Your task to perform on an android device: open app "Paramount+ | Peak Streaming" Image 0: 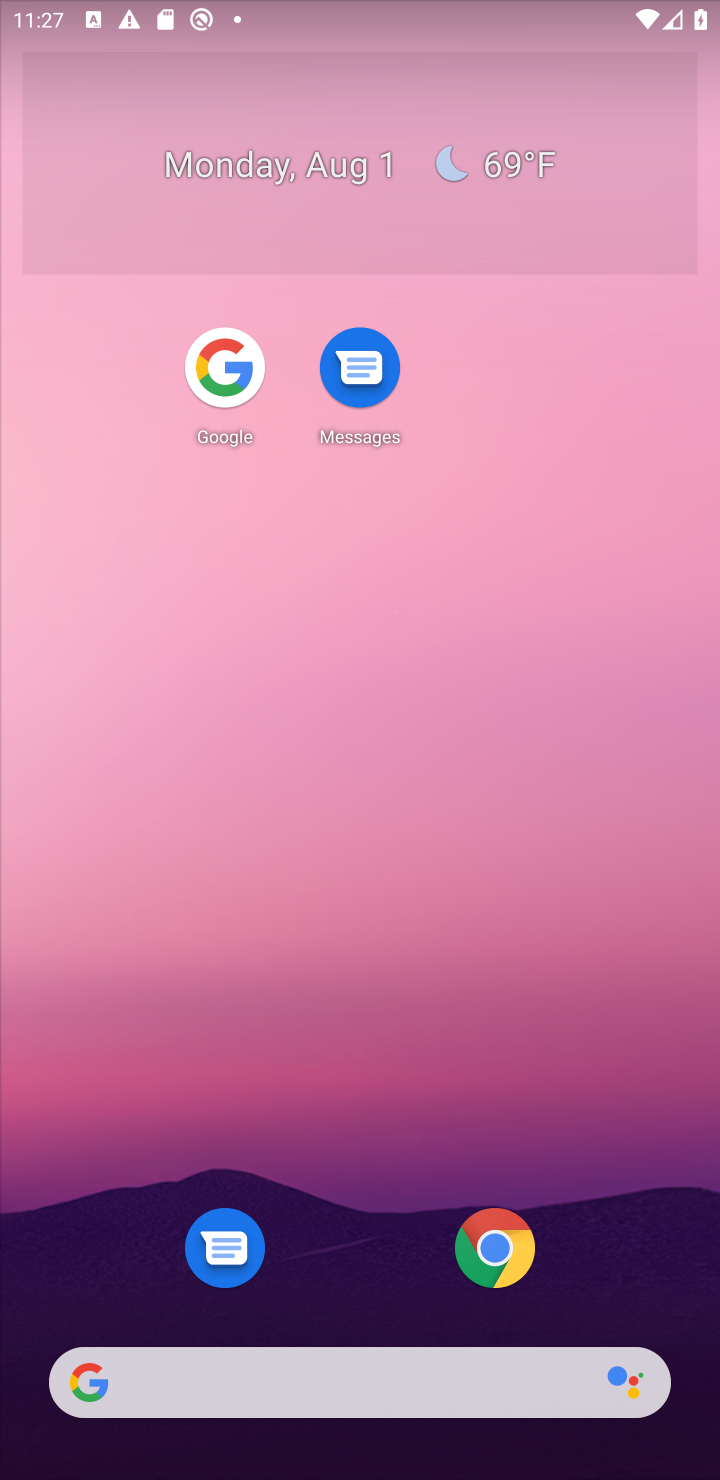
Step 0: drag from (552, 1076) to (688, 234)
Your task to perform on an android device: open app "Paramount+ | Peak Streaming" Image 1: 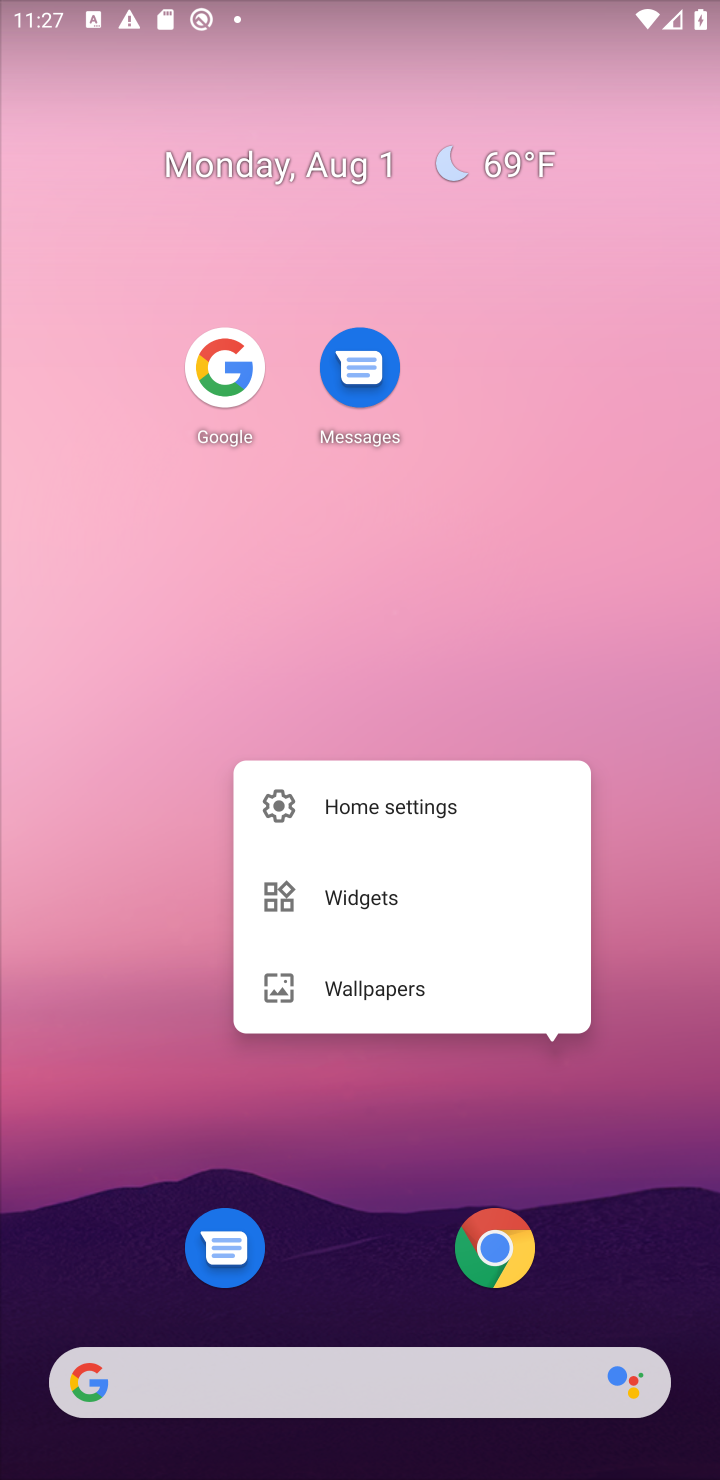
Step 1: click (583, 608)
Your task to perform on an android device: open app "Paramount+ | Peak Streaming" Image 2: 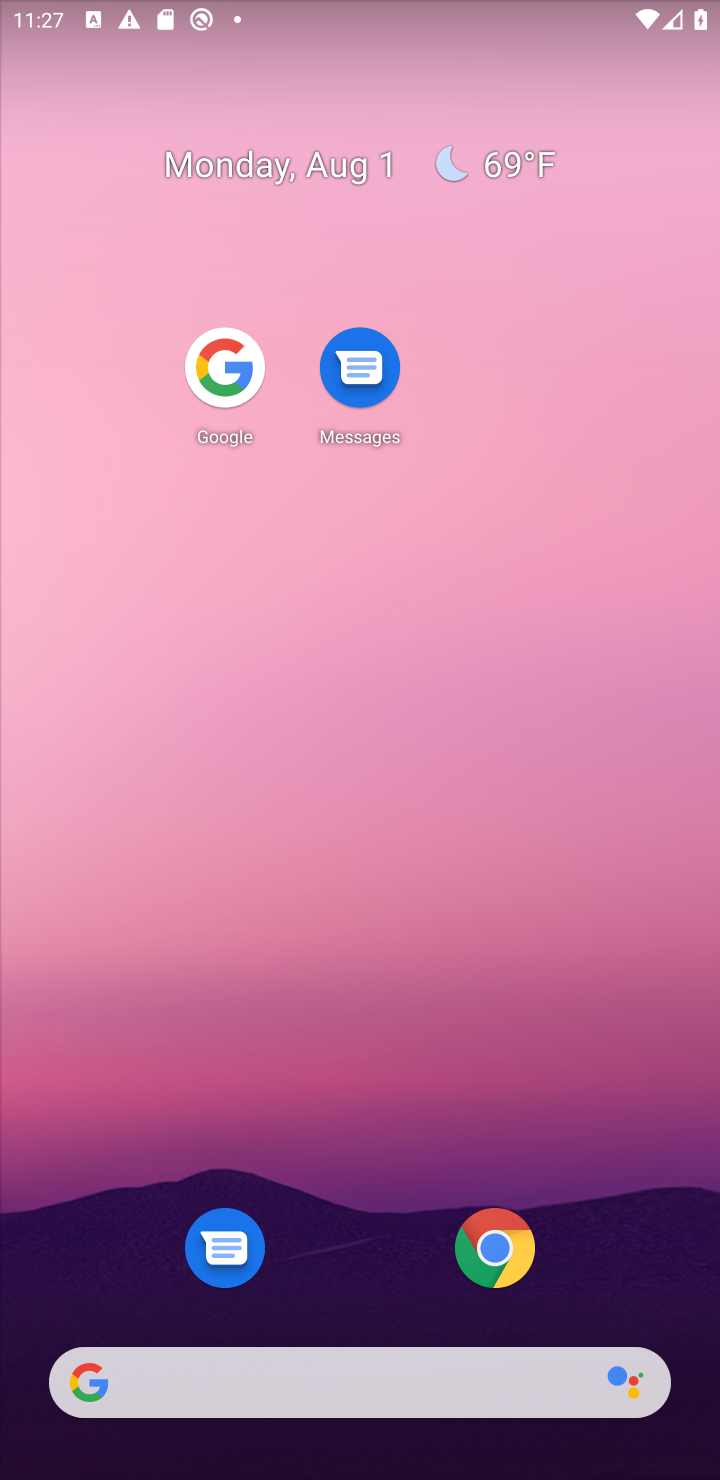
Step 2: drag from (331, 1264) to (498, 324)
Your task to perform on an android device: open app "Paramount+ | Peak Streaming" Image 3: 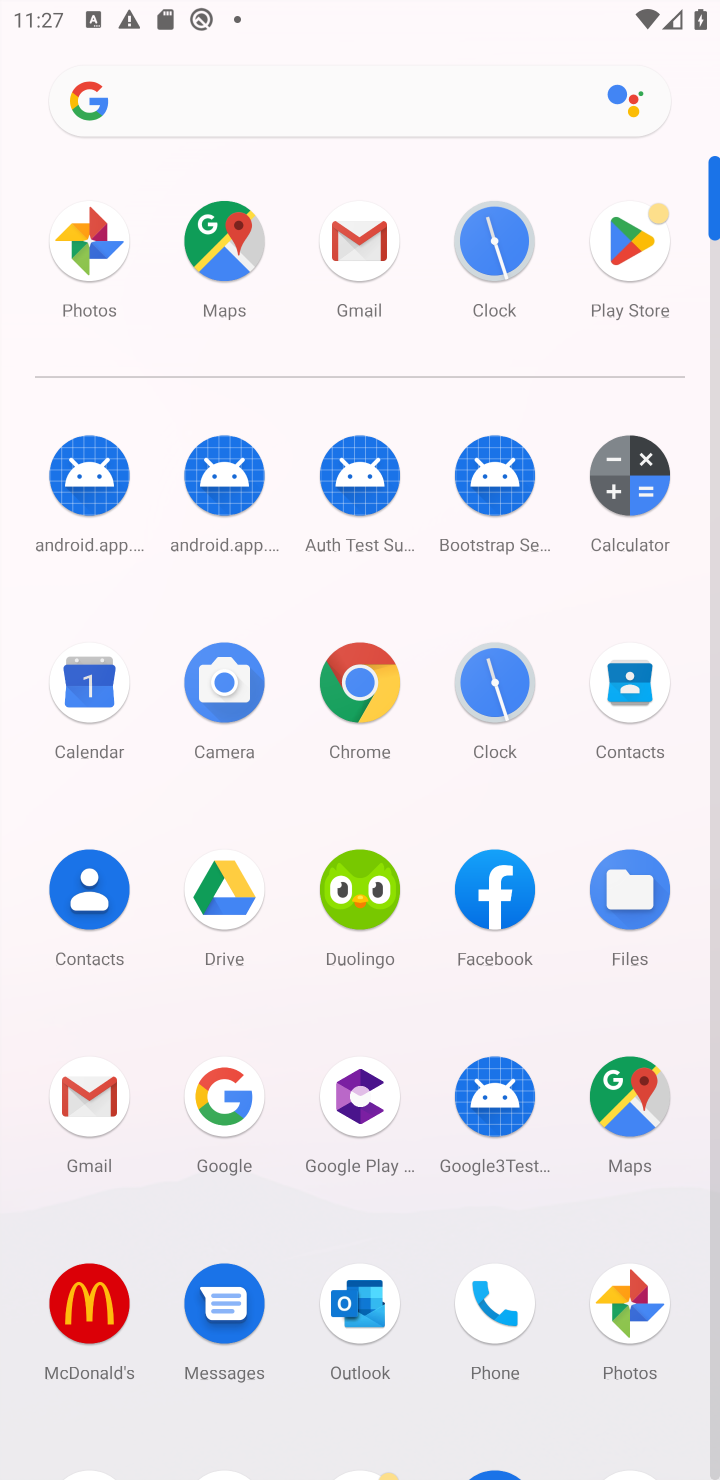
Step 3: drag from (422, 1217) to (310, 388)
Your task to perform on an android device: open app "Paramount+ | Peak Streaming" Image 4: 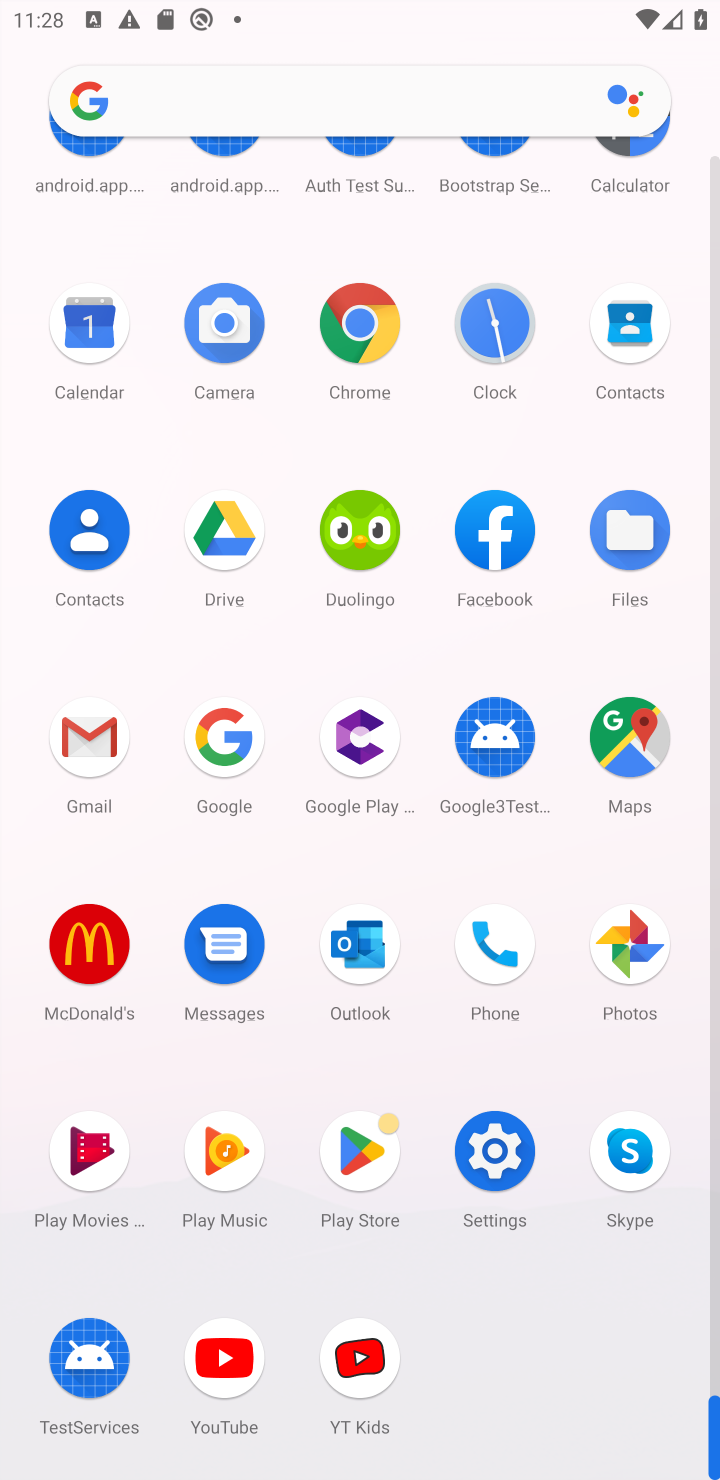
Step 4: click (373, 1156)
Your task to perform on an android device: open app "Paramount+ | Peak Streaming" Image 5: 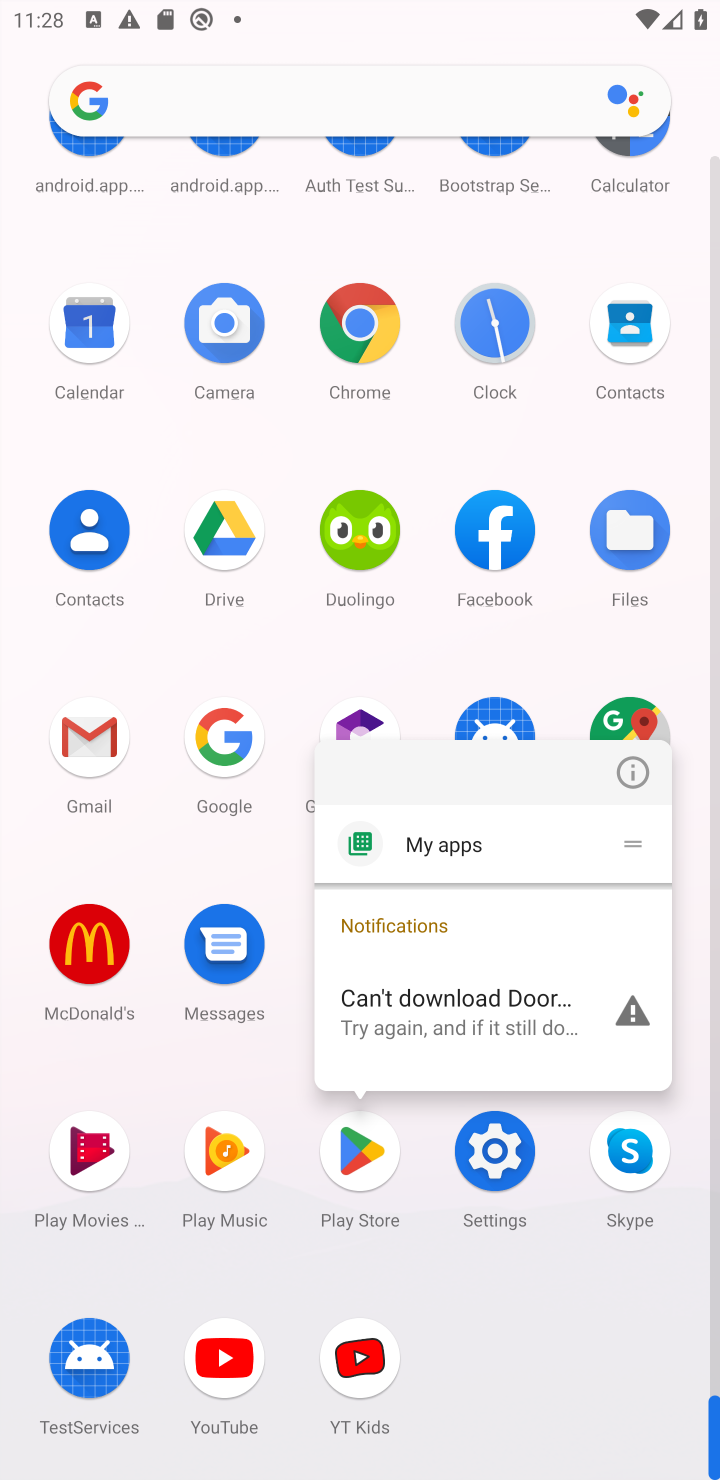
Step 5: click (347, 1157)
Your task to perform on an android device: open app "Paramount+ | Peak Streaming" Image 6: 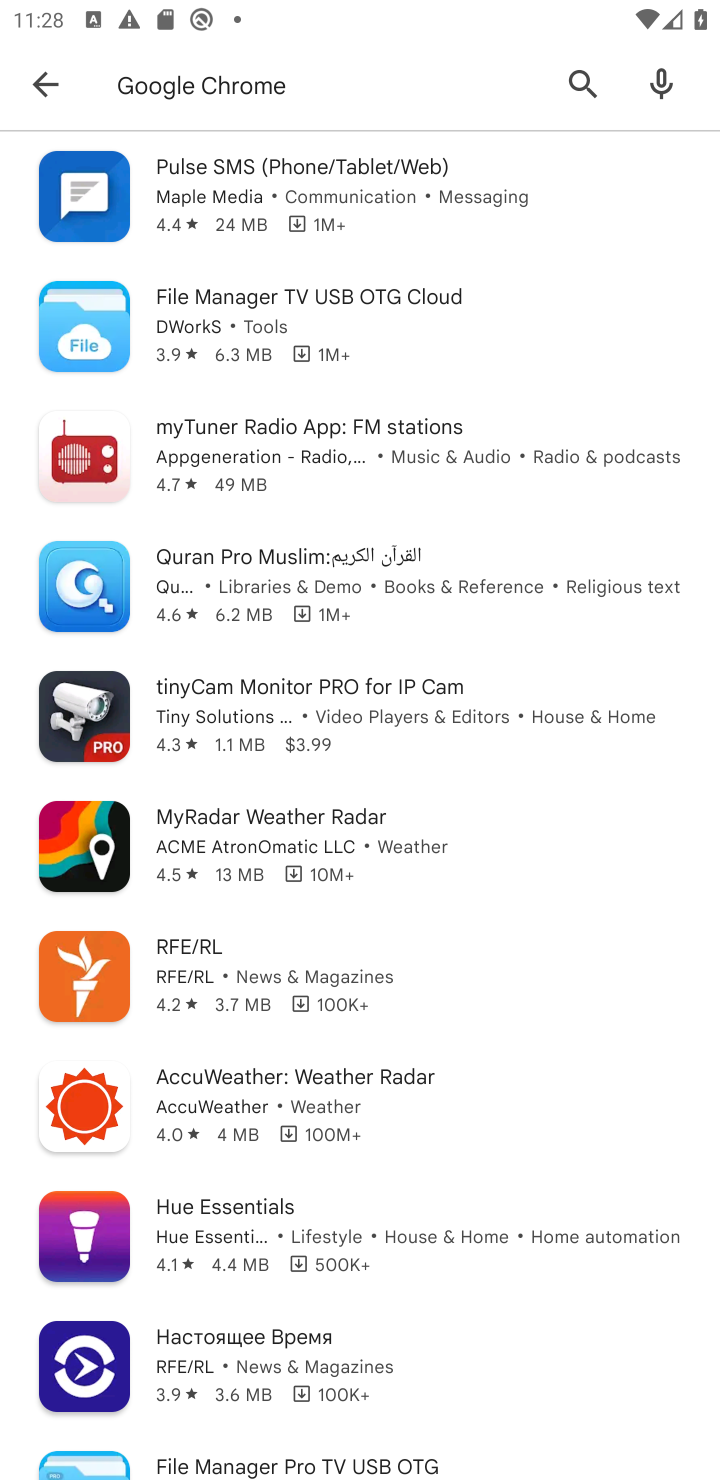
Step 6: click (372, 70)
Your task to perform on an android device: open app "Paramount+ | Peak Streaming" Image 7: 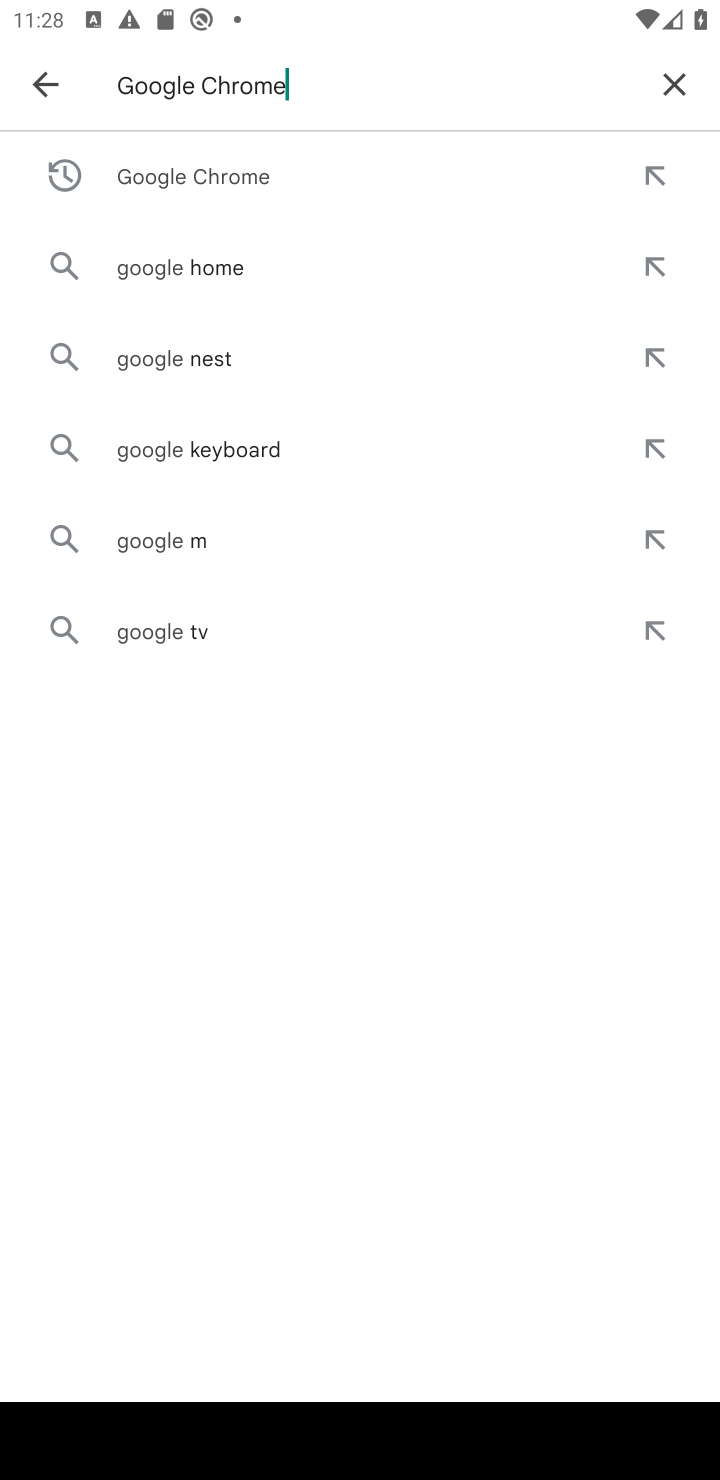
Step 7: click (689, 94)
Your task to perform on an android device: open app "Paramount+ | Peak Streaming" Image 8: 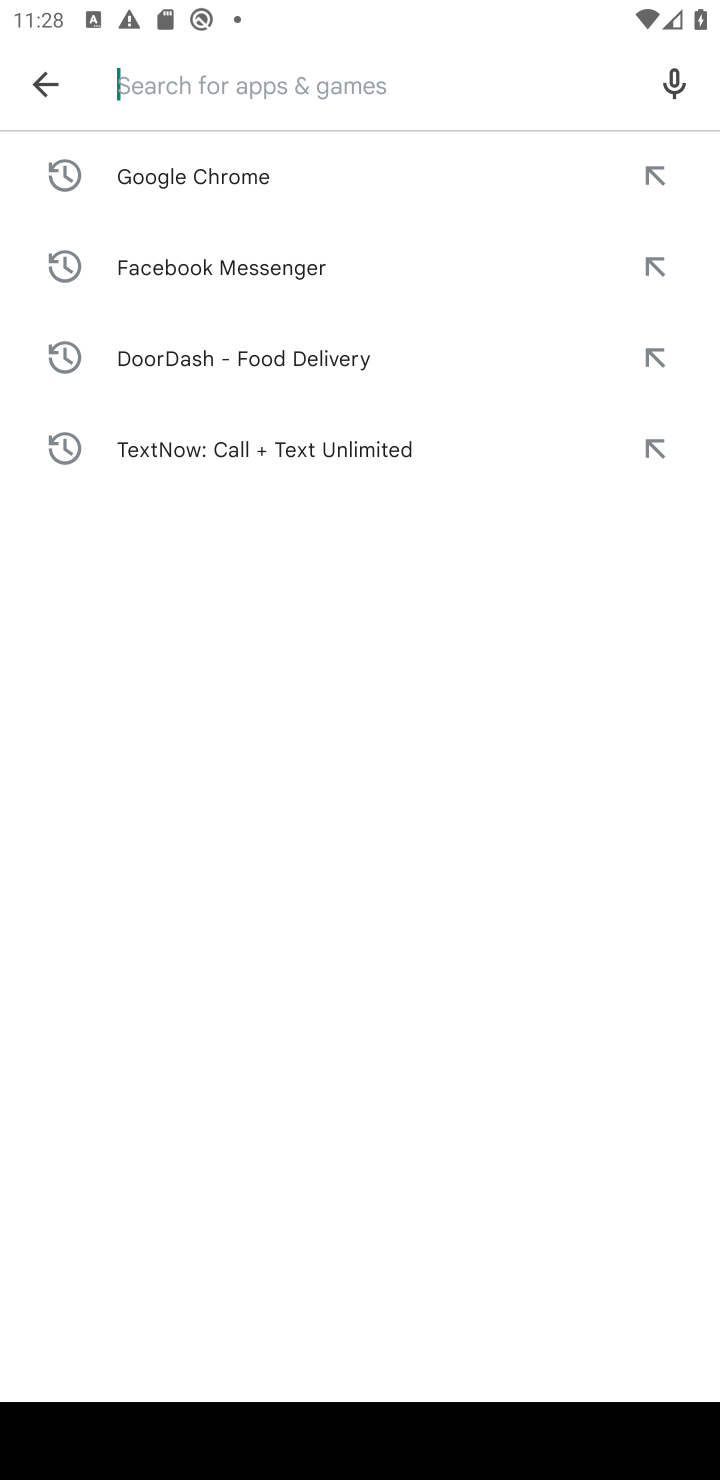
Step 8: type "Paramount+ | = Peak Streaming"
Your task to perform on an android device: open app "Paramount+ | Peak Streaming" Image 9: 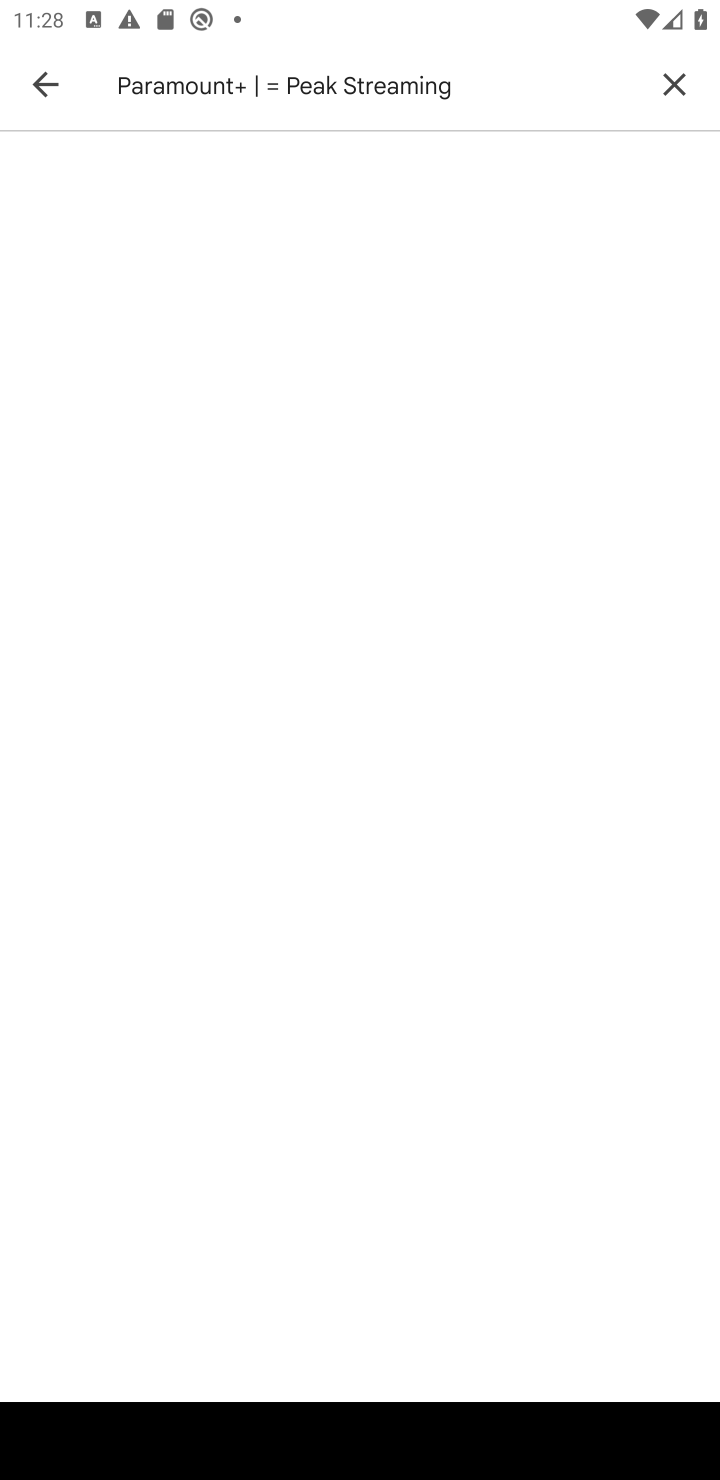
Step 9: press enter
Your task to perform on an android device: open app "Paramount+ | Peak Streaming" Image 10: 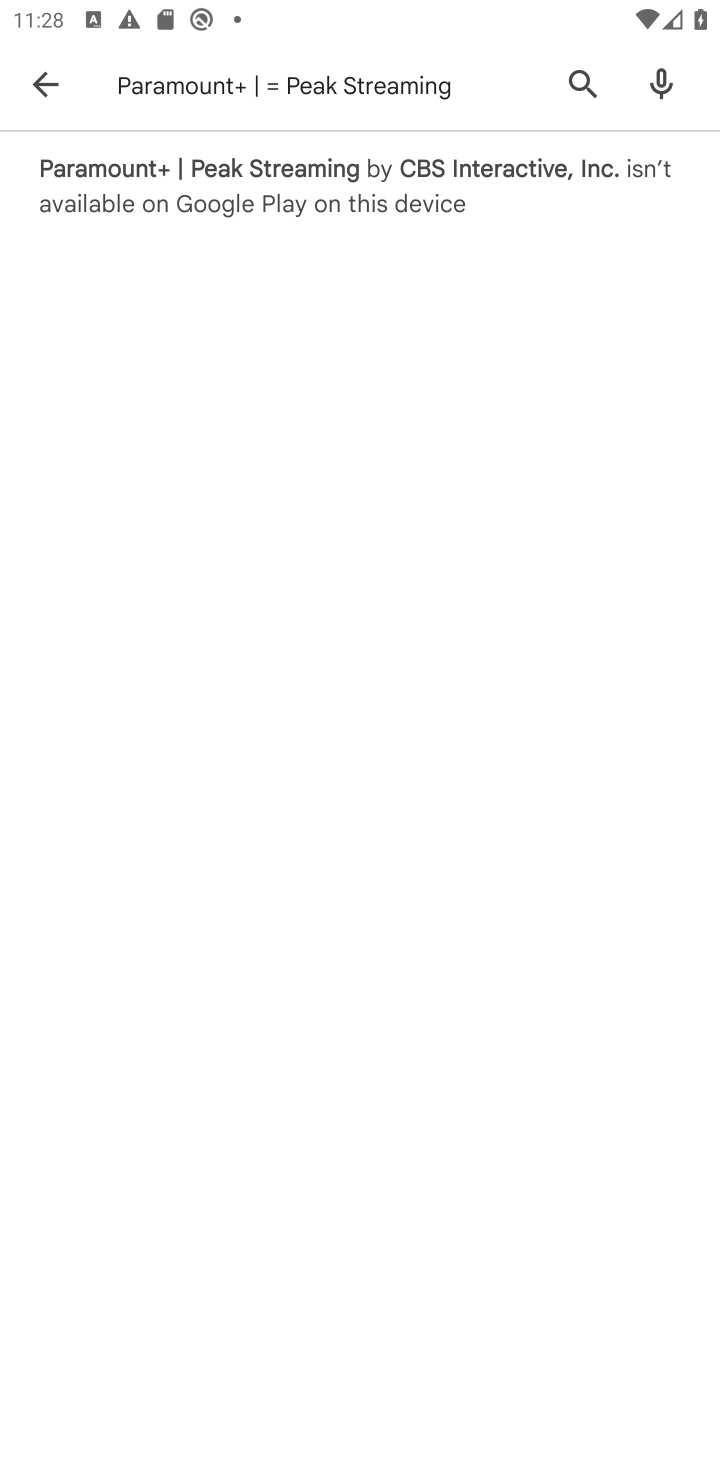
Step 10: click (237, 155)
Your task to perform on an android device: open app "Paramount+ | Peak Streaming" Image 11: 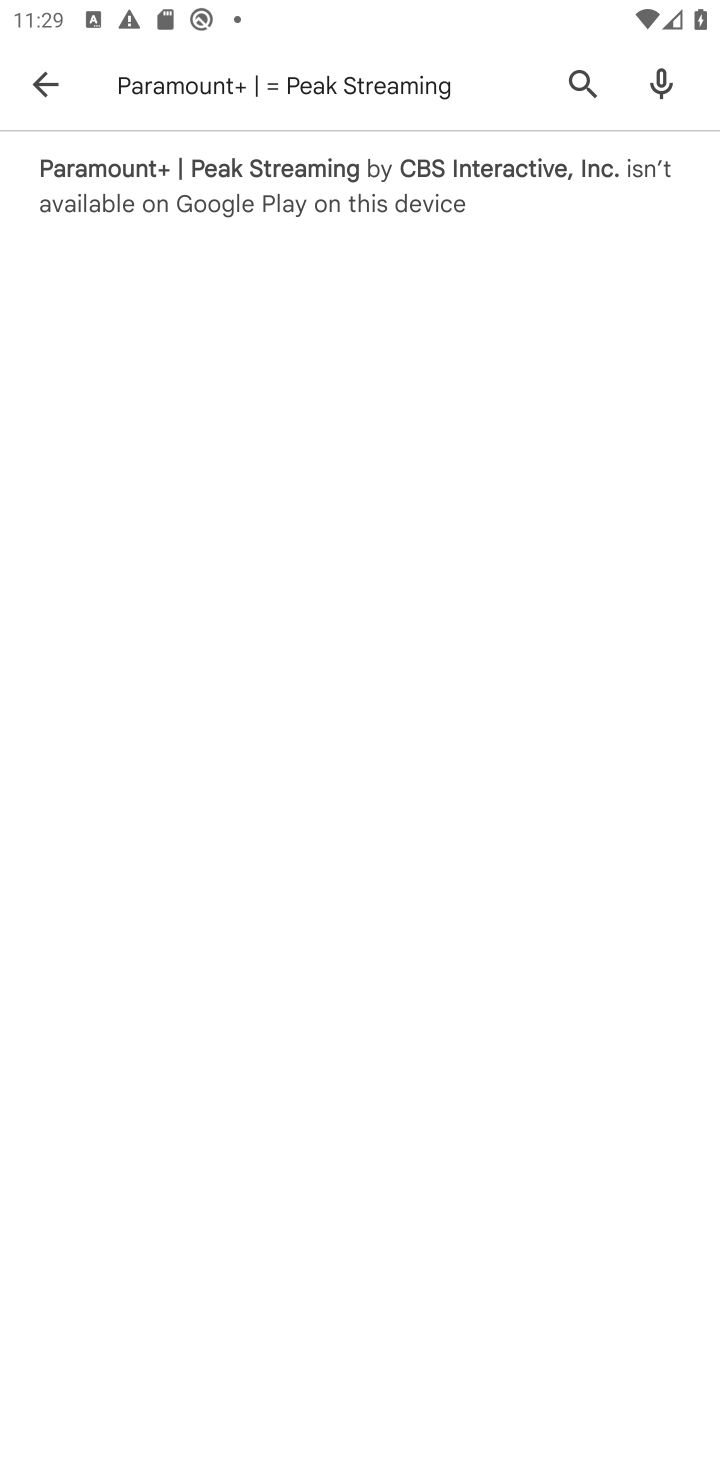
Step 11: task complete